Your task to perform on an android device: open chrome privacy settings Image 0: 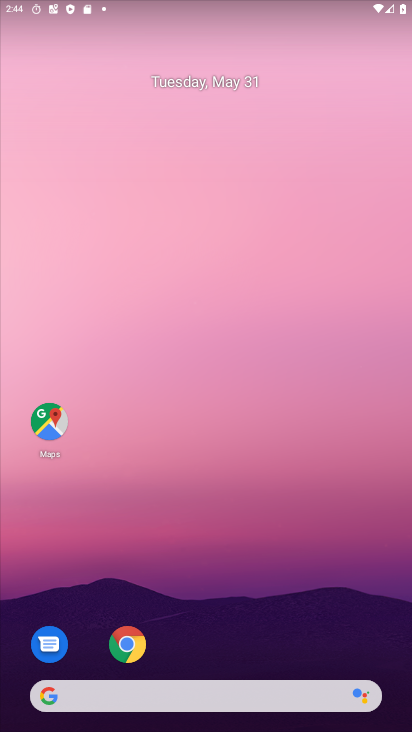
Step 0: click (120, 639)
Your task to perform on an android device: open chrome privacy settings Image 1: 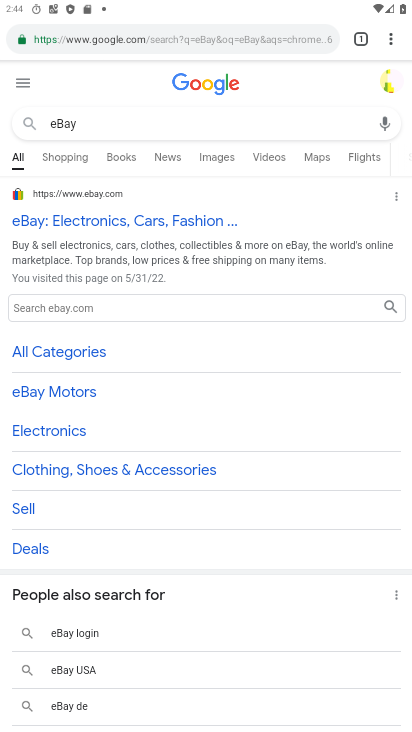
Step 1: click (386, 34)
Your task to perform on an android device: open chrome privacy settings Image 2: 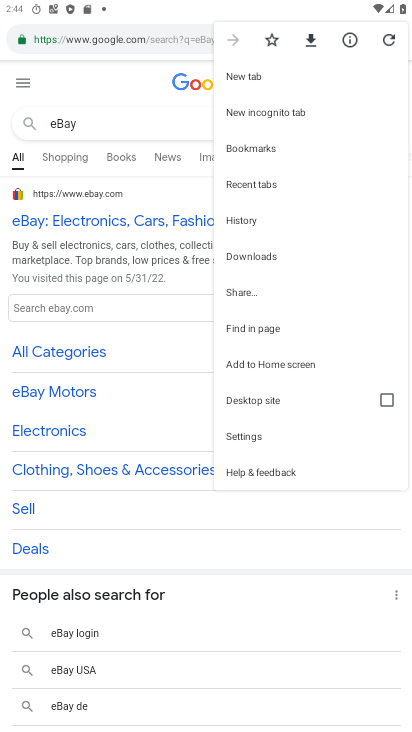
Step 2: click (226, 435)
Your task to perform on an android device: open chrome privacy settings Image 3: 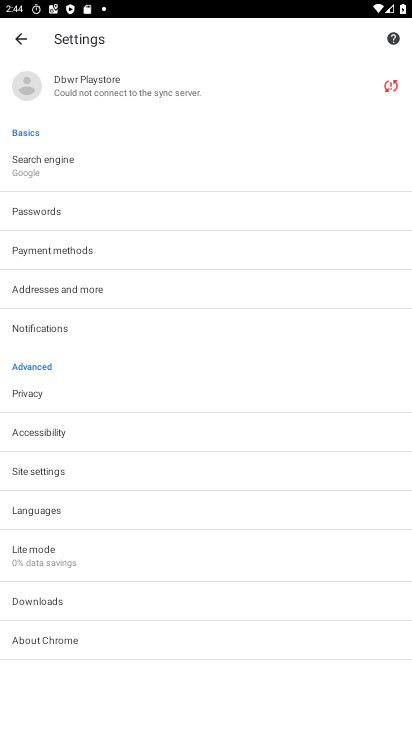
Step 3: click (13, 391)
Your task to perform on an android device: open chrome privacy settings Image 4: 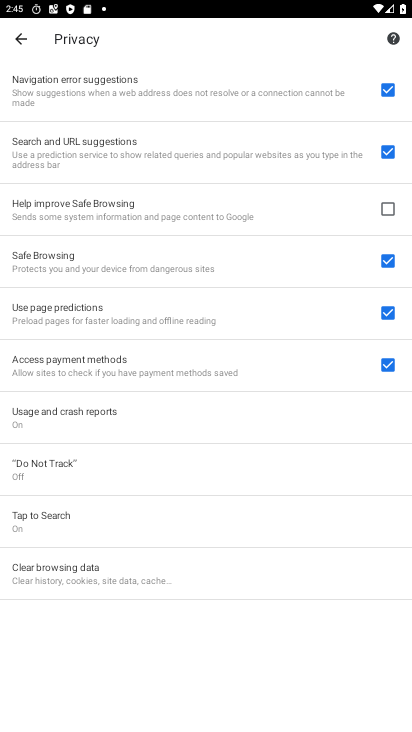
Step 4: task complete